Your task to perform on an android device: Clear the cart on costco. Search for razer blackwidow on costco, select the first entry, add it to the cart, then select checkout. Image 0: 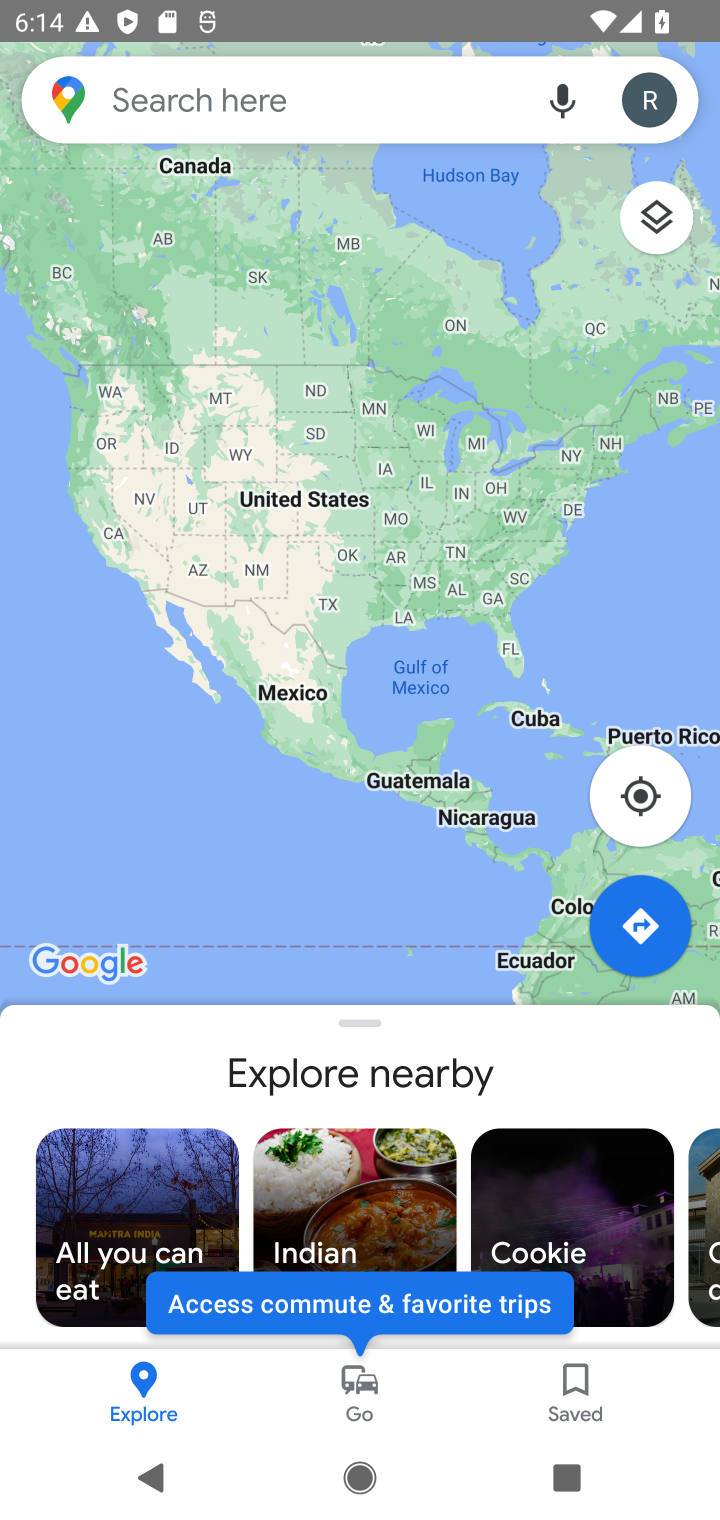
Step 0: press home button
Your task to perform on an android device: Clear the cart on costco. Search for razer blackwidow on costco, select the first entry, add it to the cart, then select checkout. Image 1: 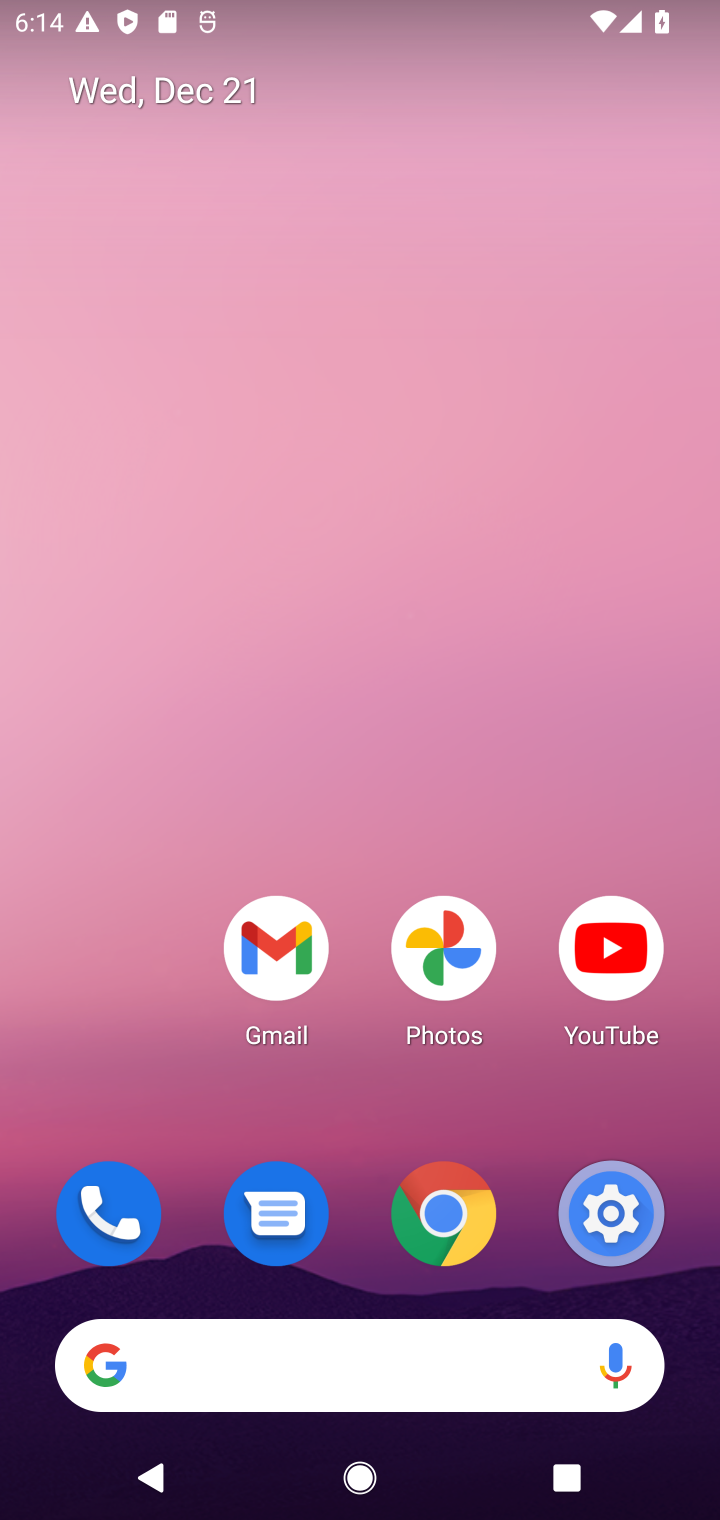
Step 1: click (440, 1253)
Your task to perform on an android device: Clear the cart on costco. Search for razer blackwidow on costco, select the first entry, add it to the cart, then select checkout. Image 2: 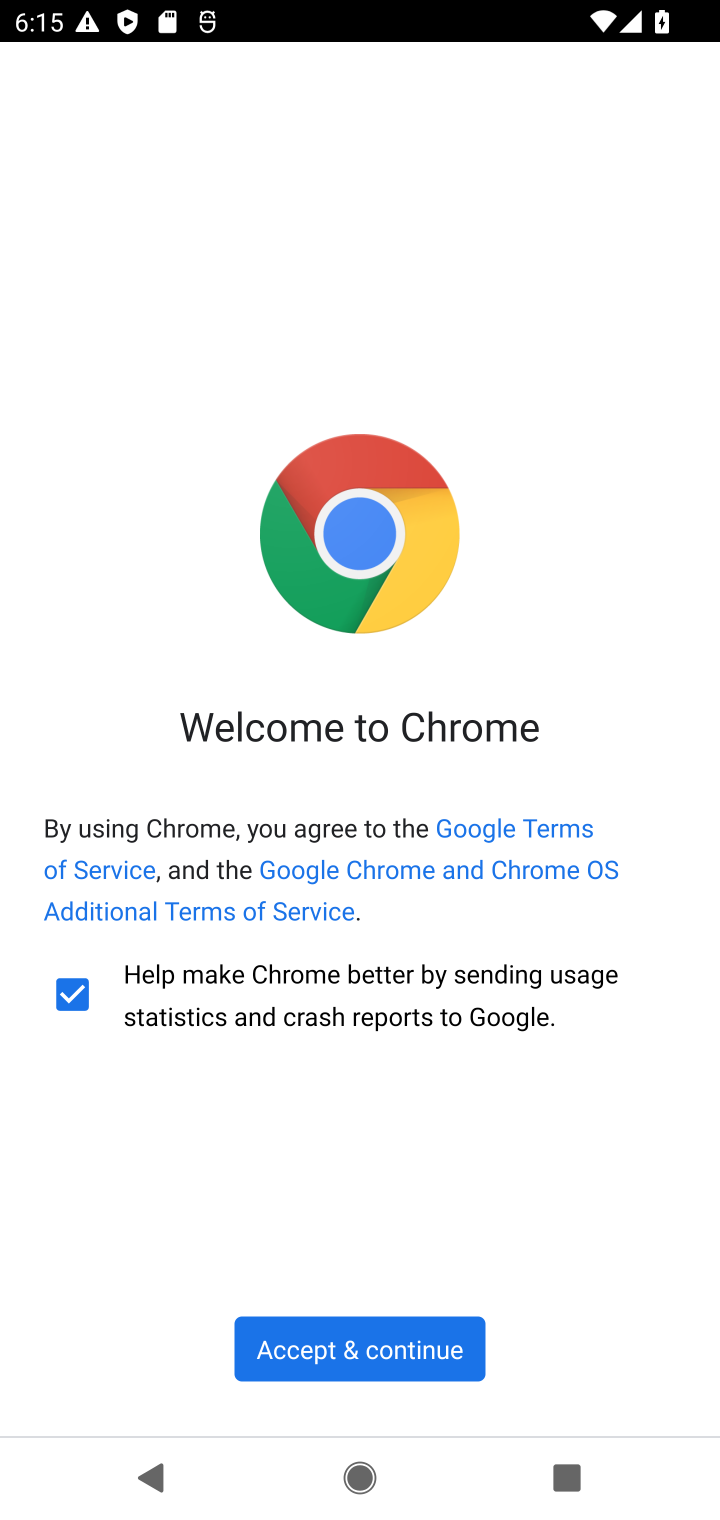
Step 2: click (441, 1346)
Your task to perform on an android device: Clear the cart on costco. Search for razer blackwidow on costco, select the first entry, add it to the cart, then select checkout. Image 3: 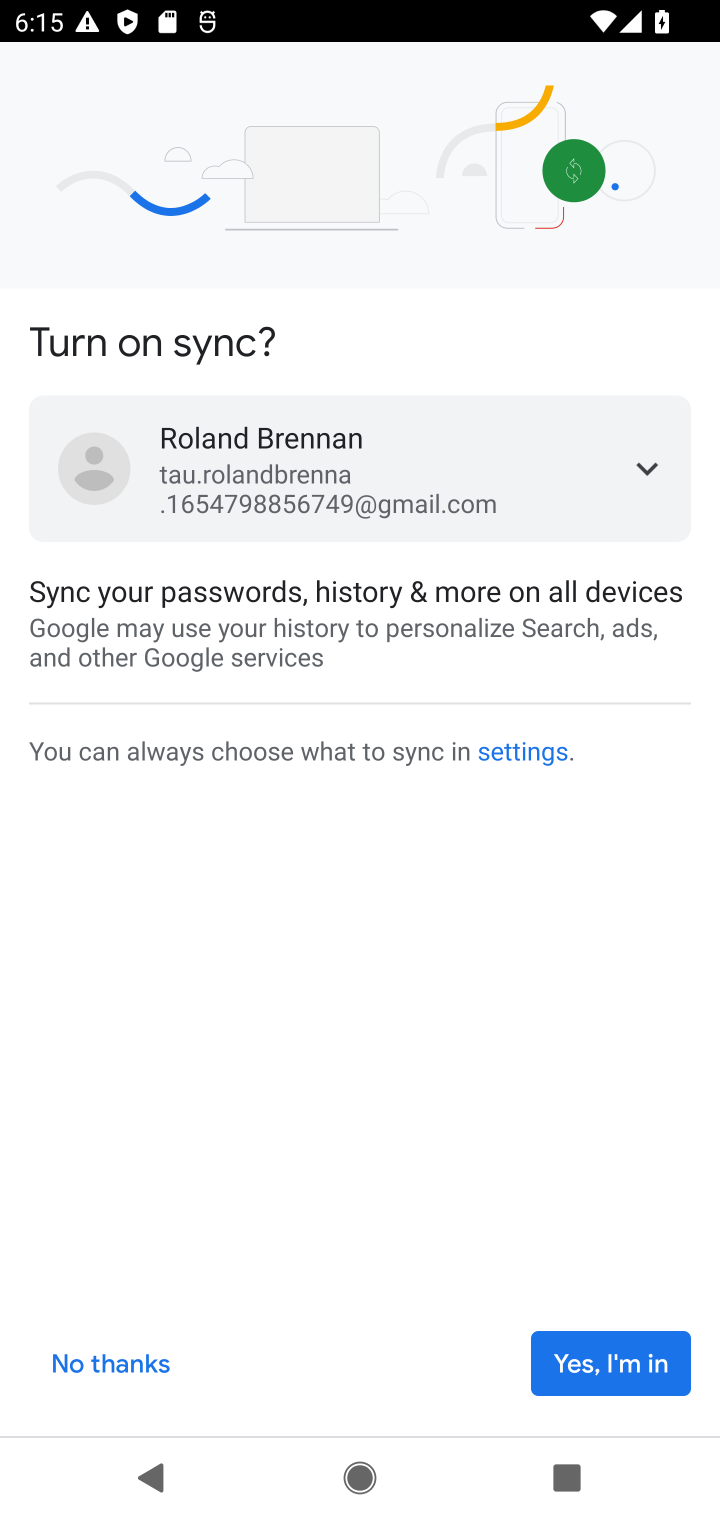
Step 3: click (544, 1378)
Your task to perform on an android device: Clear the cart on costco. Search for razer blackwidow on costco, select the first entry, add it to the cart, then select checkout. Image 4: 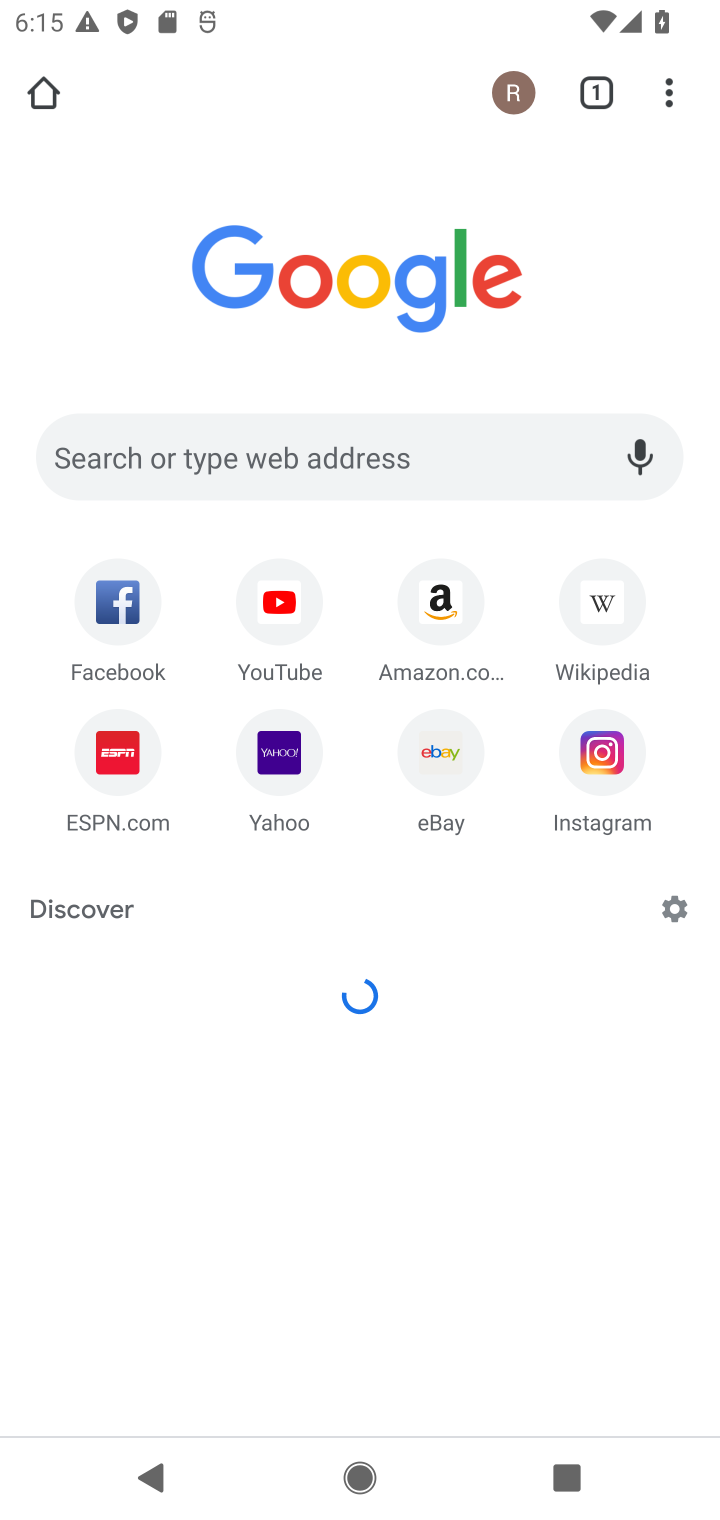
Step 4: click (544, 1378)
Your task to perform on an android device: Clear the cart on costco. Search for razer blackwidow on costco, select the first entry, add it to the cart, then select checkout. Image 5: 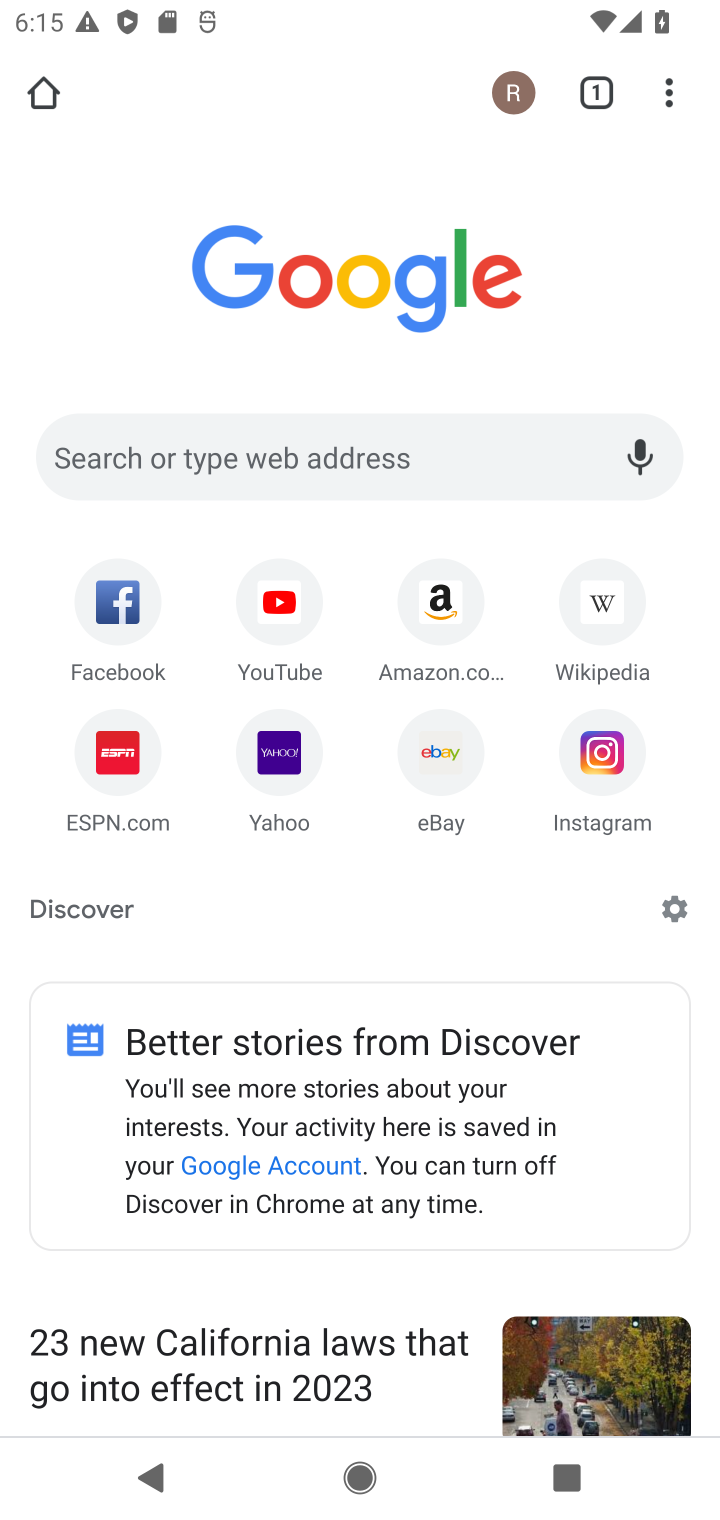
Step 5: click (325, 469)
Your task to perform on an android device: Clear the cart on costco. Search for razer blackwidow on costco, select the first entry, add it to the cart, then select checkout. Image 6: 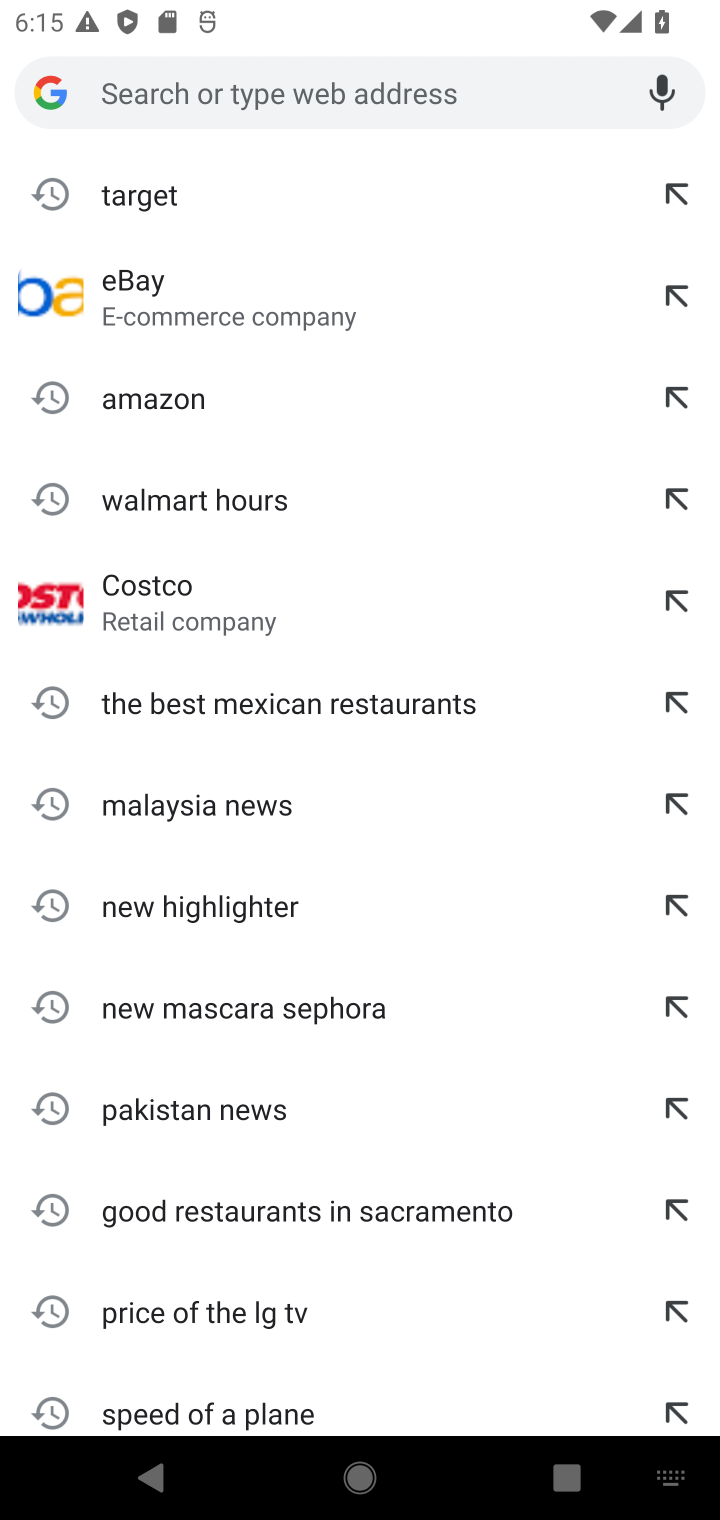
Step 6: type "costco.com"
Your task to perform on an android device: Clear the cart on costco. Search for razer blackwidow on costco, select the first entry, add it to the cart, then select checkout. Image 7: 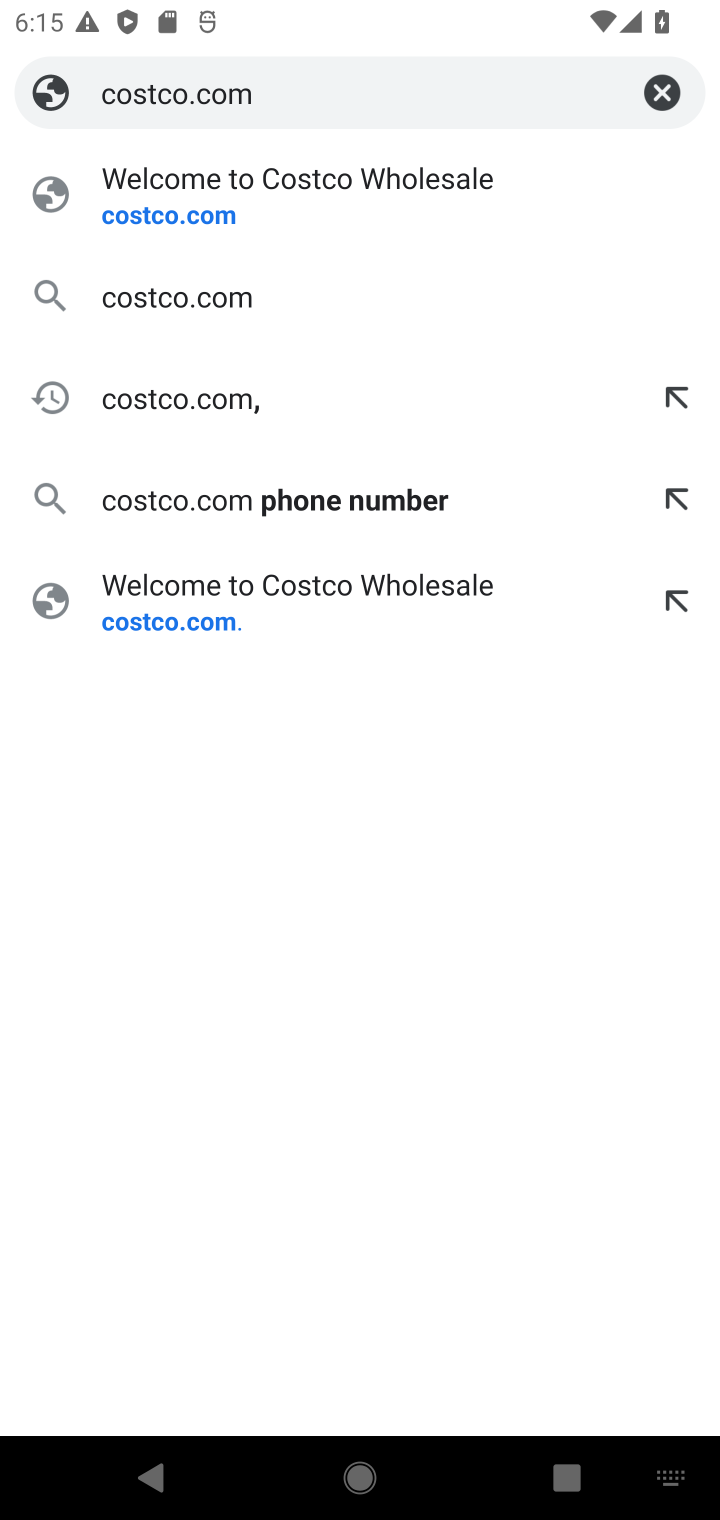
Step 7: click (142, 203)
Your task to perform on an android device: Clear the cart on costco. Search for razer blackwidow on costco, select the first entry, add it to the cart, then select checkout. Image 8: 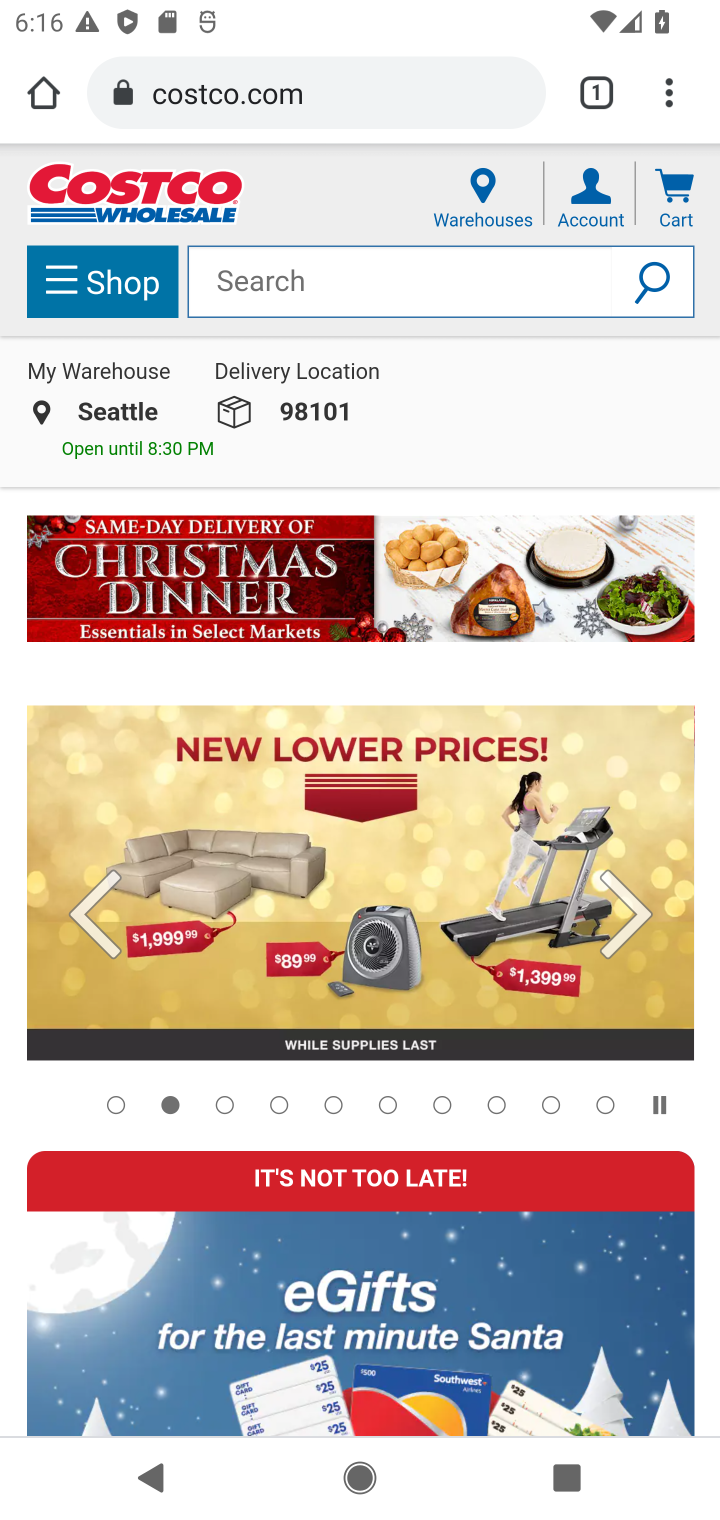
Step 8: click (459, 283)
Your task to perform on an android device: Clear the cart on costco. Search for razer blackwidow on costco, select the first entry, add it to the cart, then select checkout. Image 9: 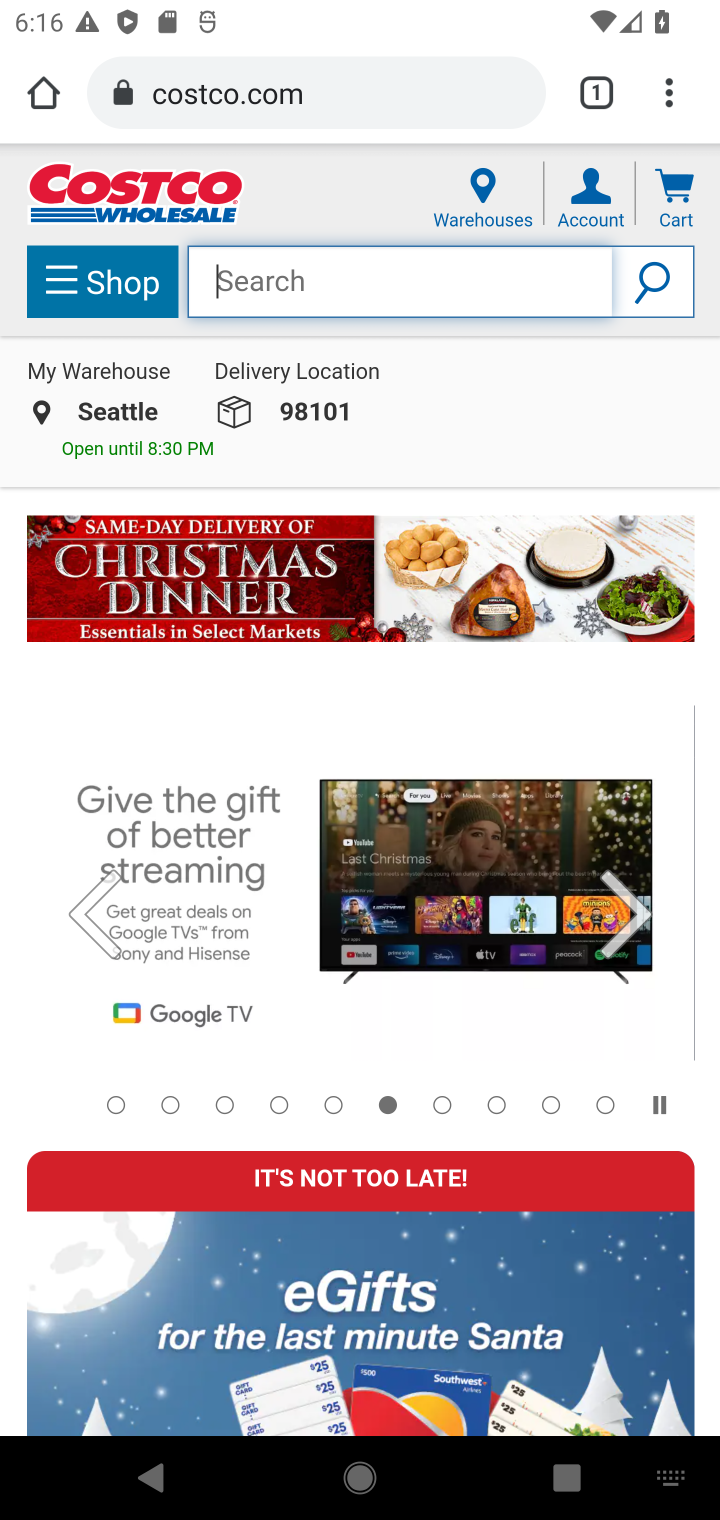
Step 9: type "razer blackwidow"
Your task to perform on an android device: Clear the cart on costco. Search for razer blackwidow on costco, select the first entry, add it to the cart, then select checkout. Image 10: 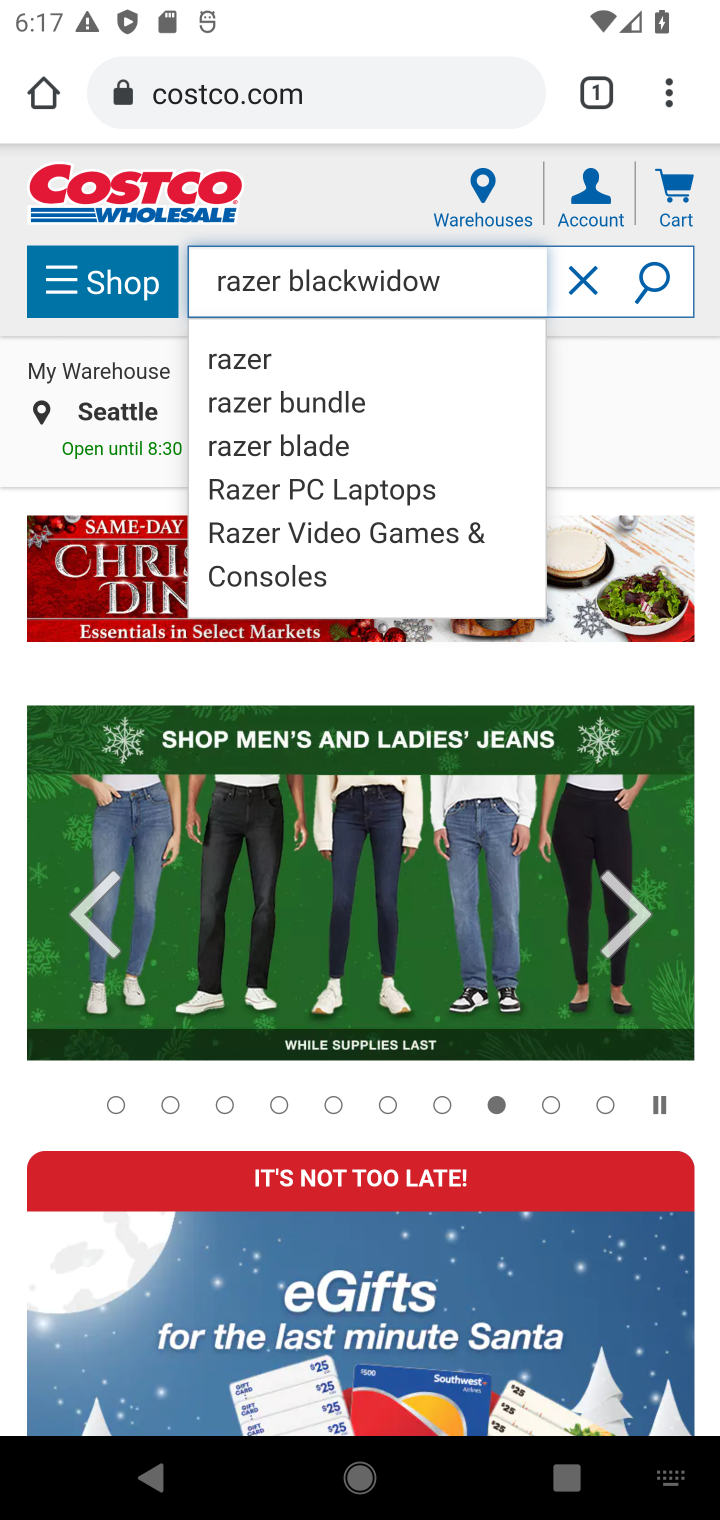
Step 10: click (634, 270)
Your task to perform on an android device: Clear the cart on costco. Search for razer blackwidow on costco, select the first entry, add it to the cart, then select checkout. Image 11: 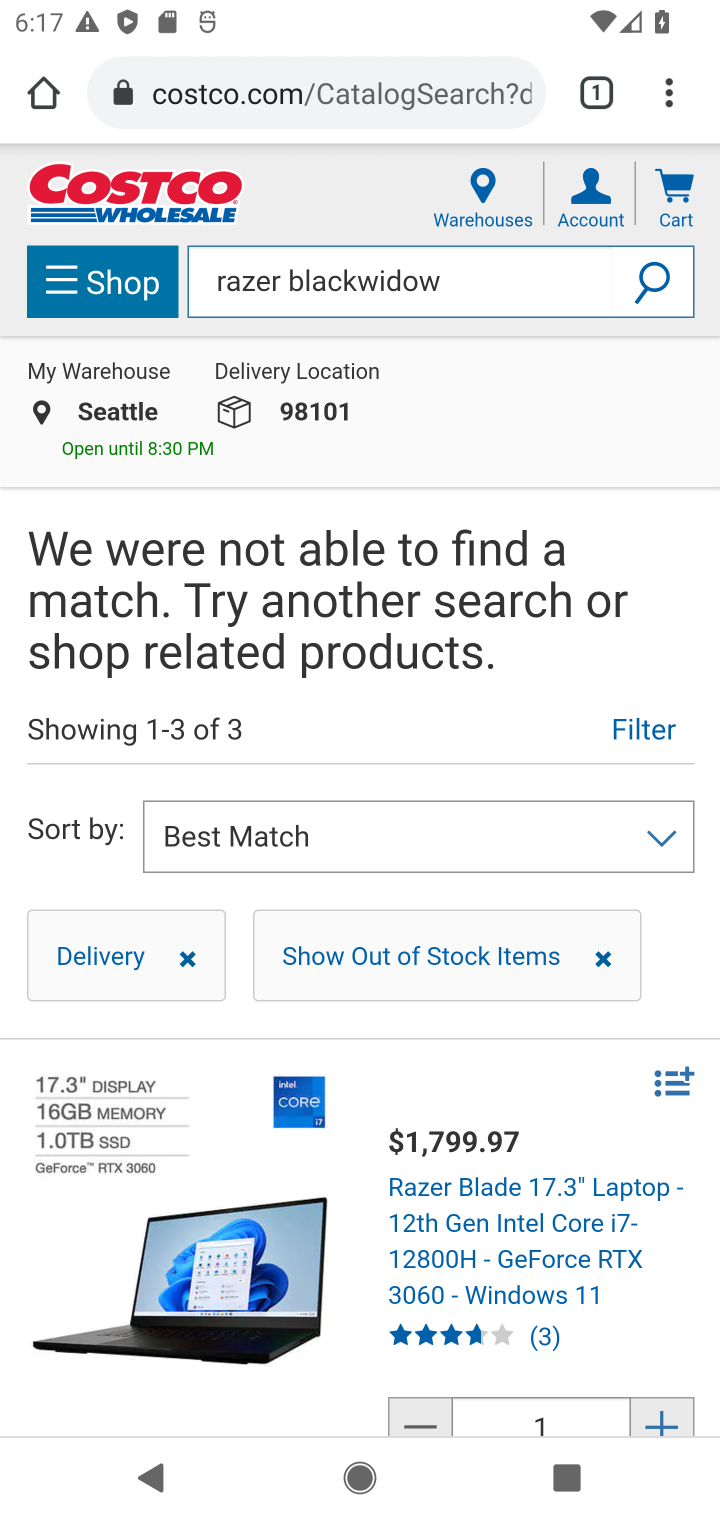
Step 11: click (532, 1199)
Your task to perform on an android device: Clear the cart on costco. Search for razer blackwidow on costco, select the first entry, add it to the cart, then select checkout. Image 12: 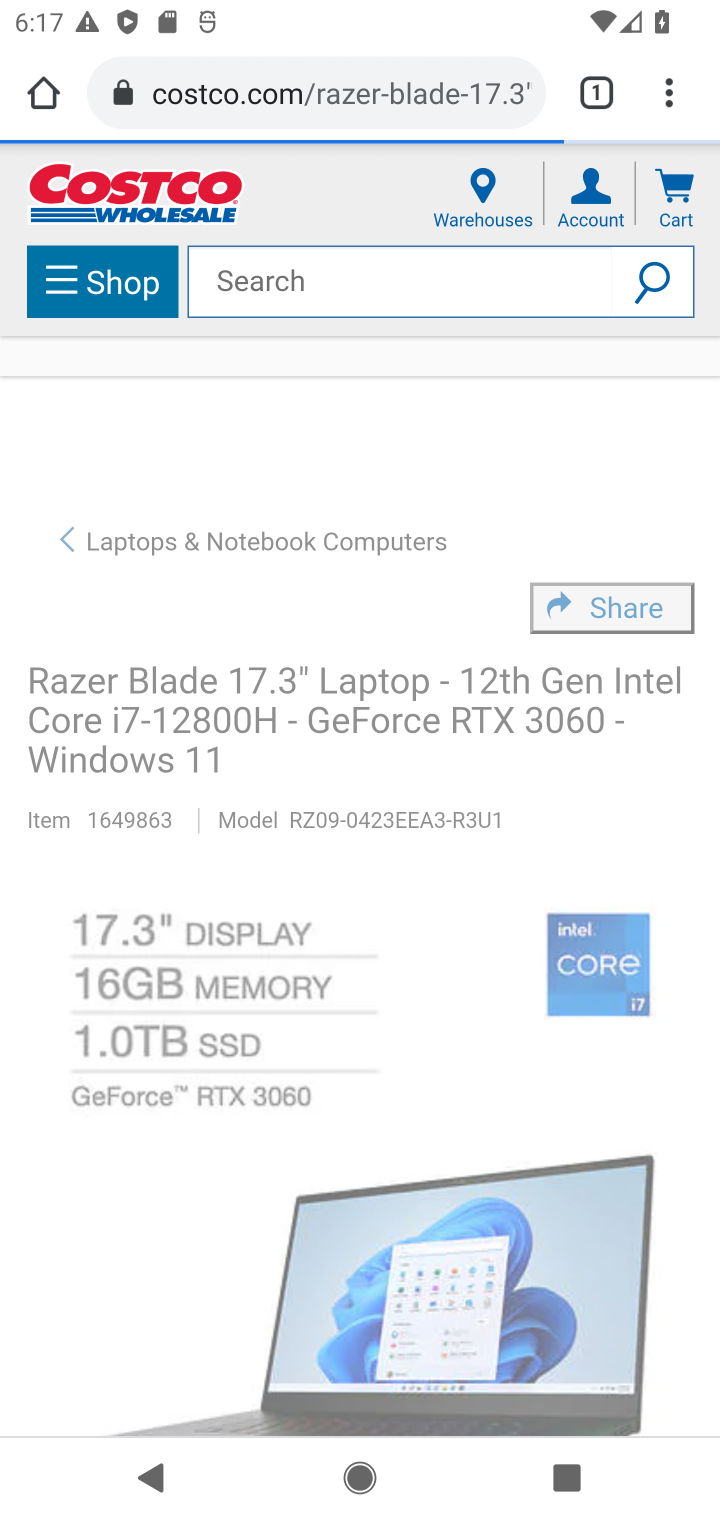
Step 12: task complete